Your task to perform on an android device: Open Google Chrome Image 0: 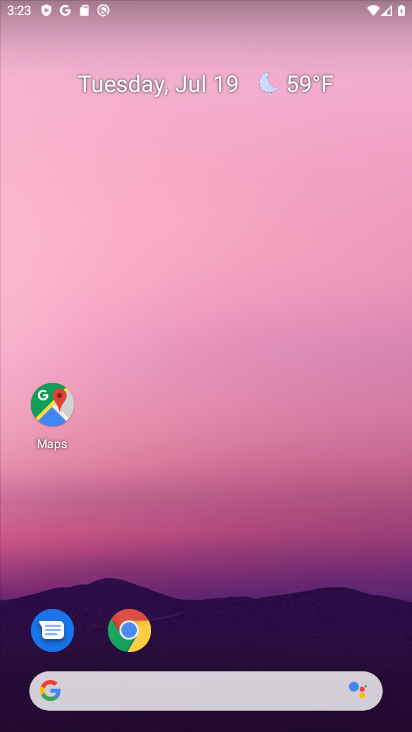
Step 0: click (140, 645)
Your task to perform on an android device: Open Google Chrome Image 1: 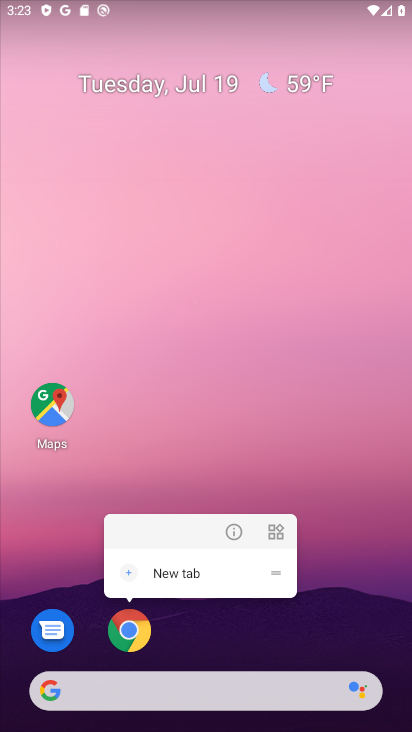
Step 1: click (134, 638)
Your task to perform on an android device: Open Google Chrome Image 2: 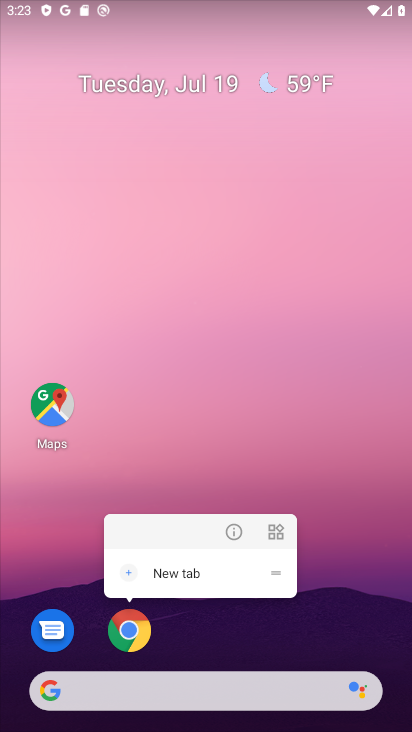
Step 2: click (133, 636)
Your task to perform on an android device: Open Google Chrome Image 3: 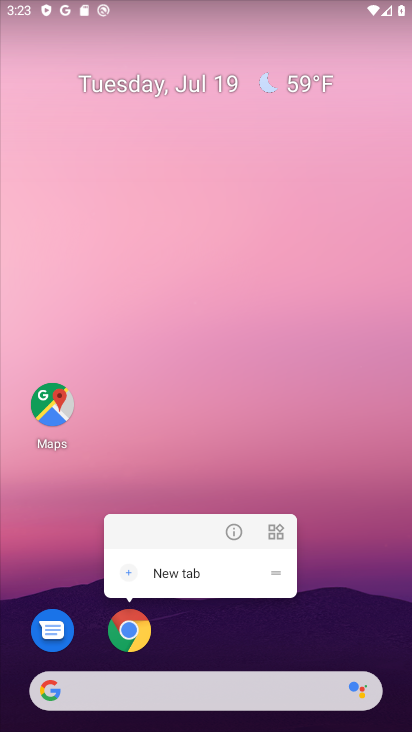
Step 3: click (133, 635)
Your task to perform on an android device: Open Google Chrome Image 4: 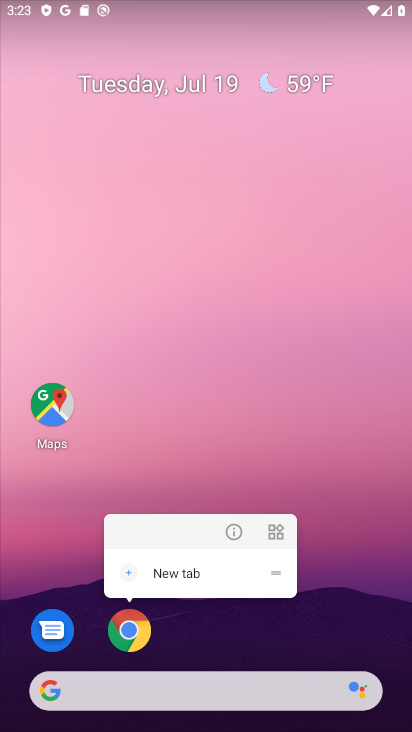
Step 4: click (130, 628)
Your task to perform on an android device: Open Google Chrome Image 5: 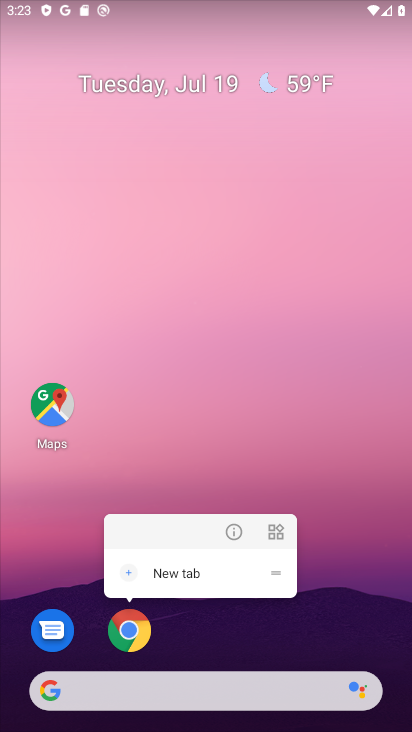
Step 5: click (136, 639)
Your task to perform on an android device: Open Google Chrome Image 6: 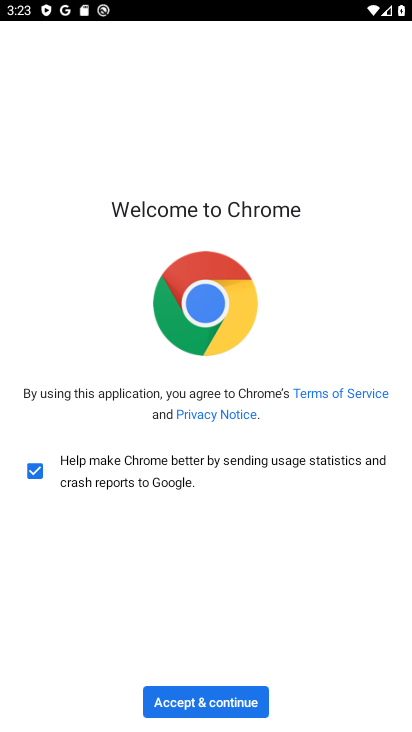
Step 6: click (218, 703)
Your task to perform on an android device: Open Google Chrome Image 7: 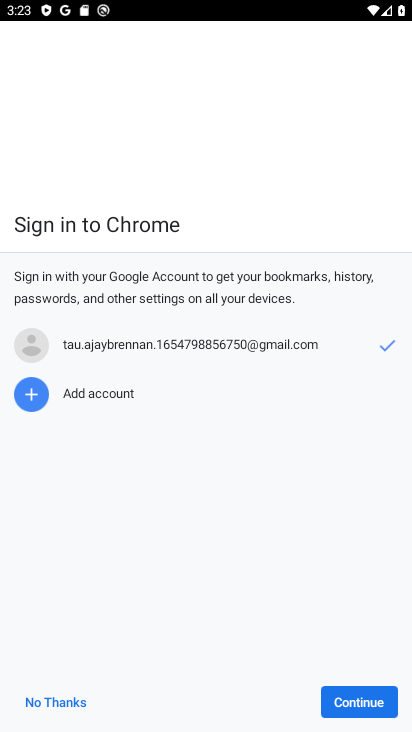
Step 7: click (358, 699)
Your task to perform on an android device: Open Google Chrome Image 8: 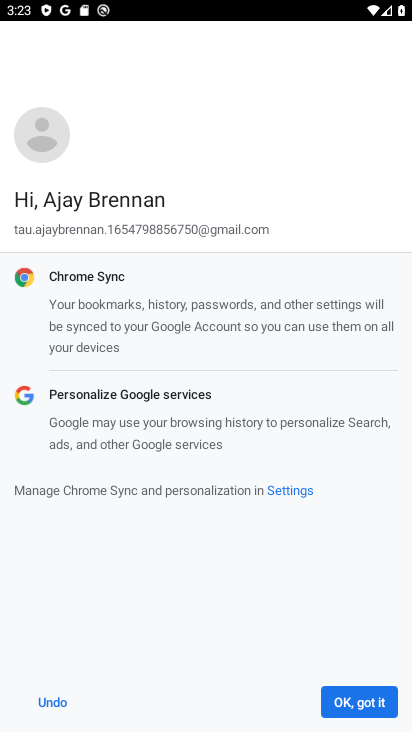
Step 8: click (372, 711)
Your task to perform on an android device: Open Google Chrome Image 9: 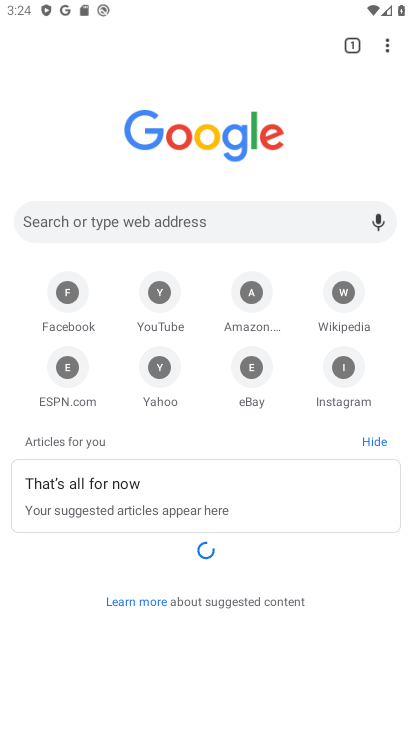
Step 9: task complete